Your task to perform on an android device: turn pop-ups off in chrome Image 0: 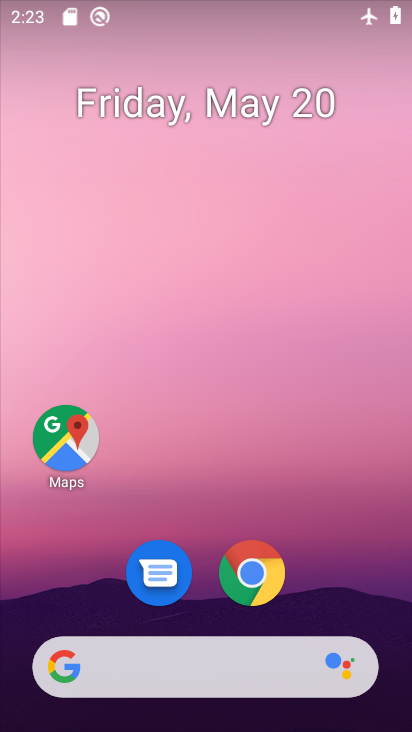
Step 0: click (238, 573)
Your task to perform on an android device: turn pop-ups off in chrome Image 1: 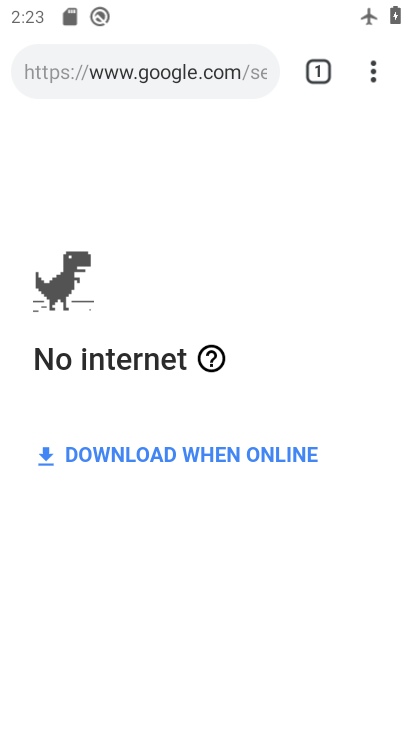
Step 1: drag from (363, 77) to (152, 574)
Your task to perform on an android device: turn pop-ups off in chrome Image 2: 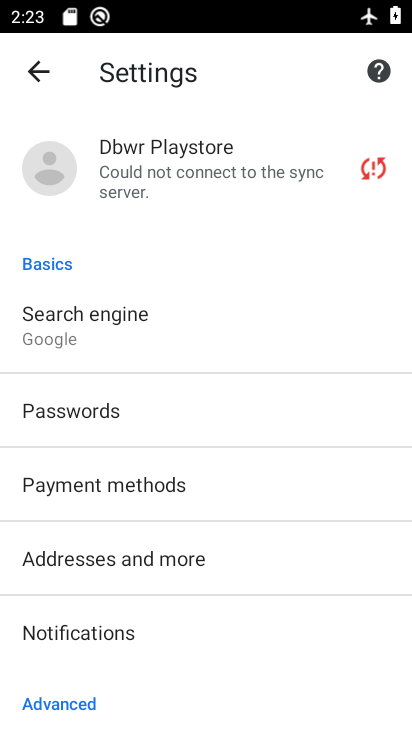
Step 2: drag from (189, 593) to (217, 358)
Your task to perform on an android device: turn pop-ups off in chrome Image 3: 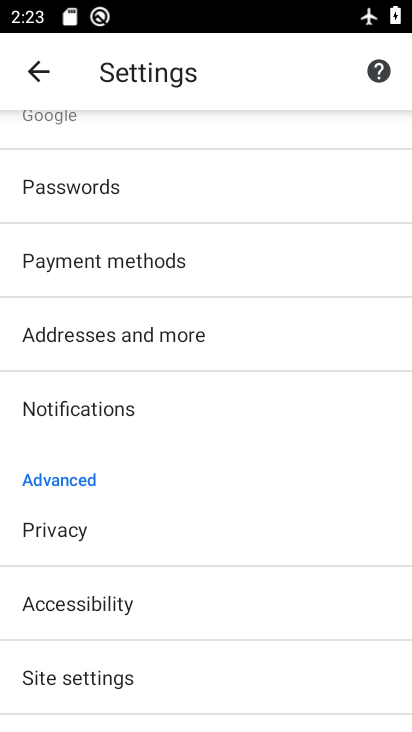
Step 3: drag from (167, 607) to (203, 455)
Your task to perform on an android device: turn pop-ups off in chrome Image 4: 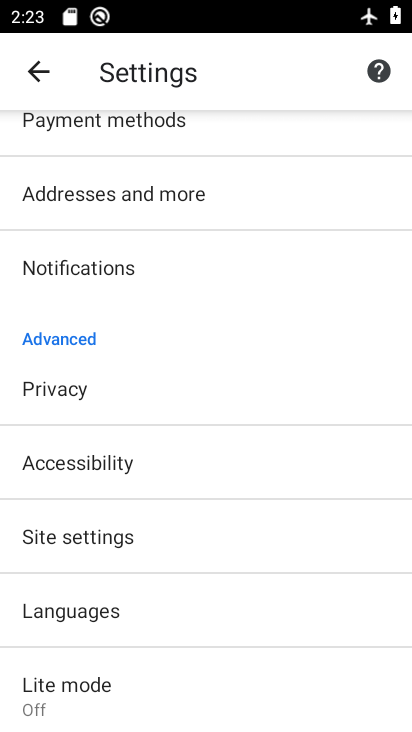
Step 4: click (161, 528)
Your task to perform on an android device: turn pop-ups off in chrome Image 5: 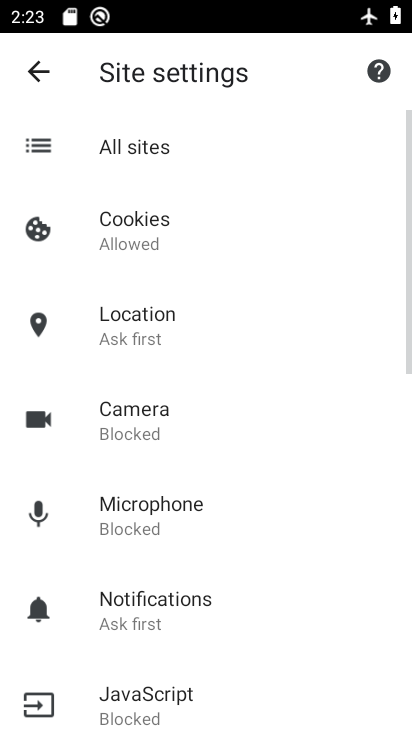
Step 5: drag from (159, 640) to (183, 360)
Your task to perform on an android device: turn pop-ups off in chrome Image 6: 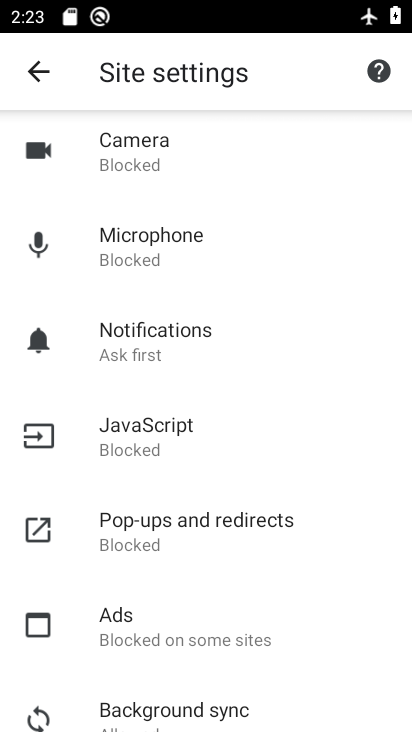
Step 6: click (163, 524)
Your task to perform on an android device: turn pop-ups off in chrome Image 7: 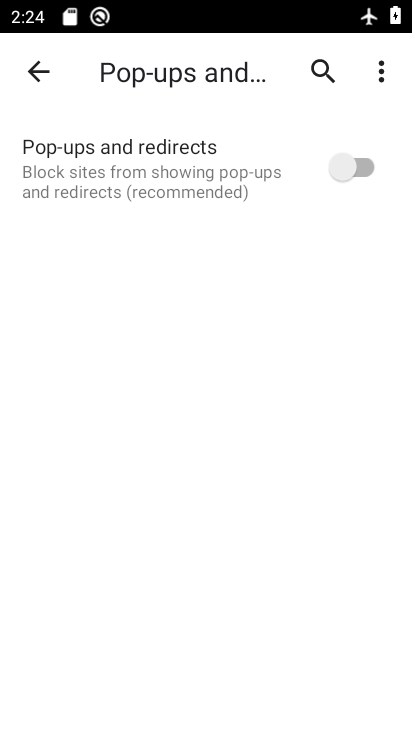
Step 7: task complete